Your task to perform on an android device: toggle airplane mode Image 0: 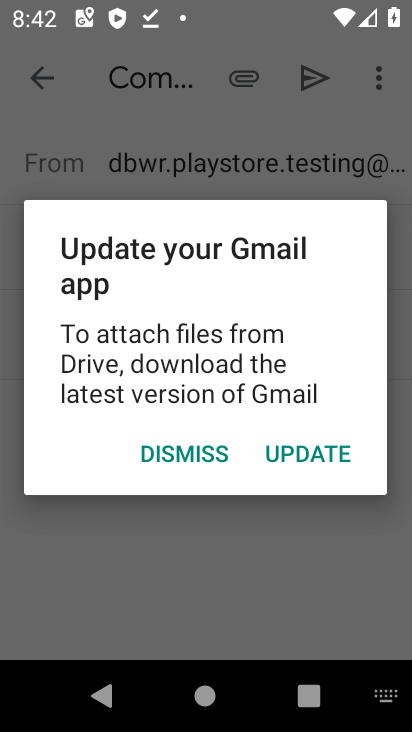
Step 0: click (298, 452)
Your task to perform on an android device: toggle airplane mode Image 1: 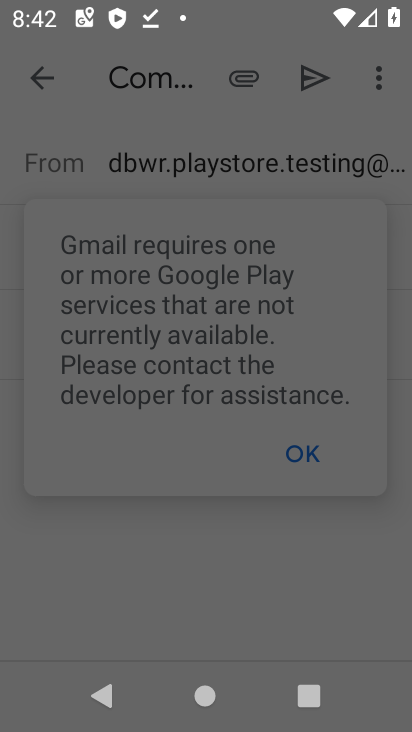
Step 1: click (215, 451)
Your task to perform on an android device: toggle airplane mode Image 2: 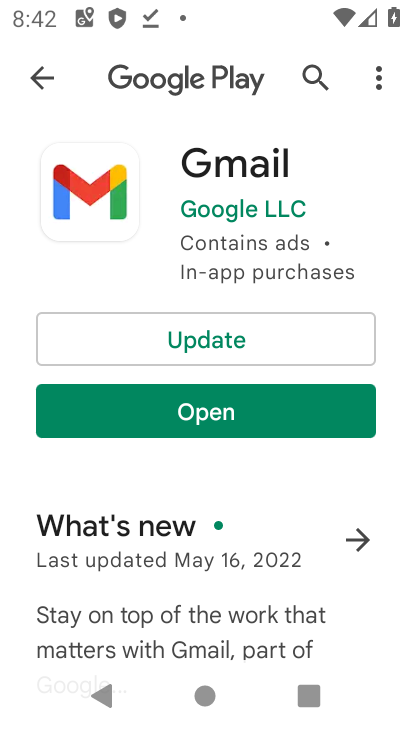
Step 2: press back button
Your task to perform on an android device: toggle airplane mode Image 3: 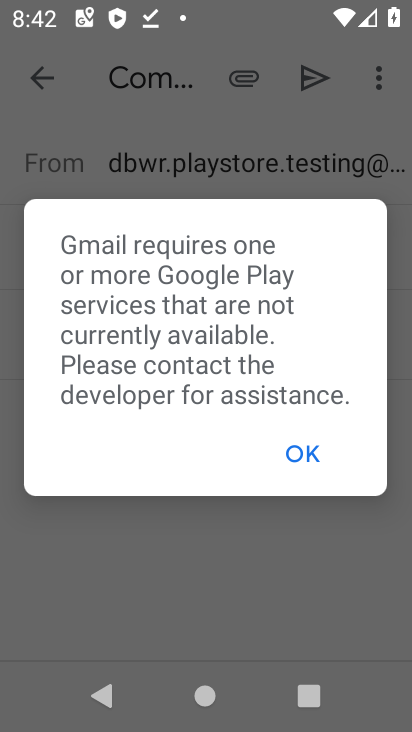
Step 3: click (308, 453)
Your task to perform on an android device: toggle airplane mode Image 4: 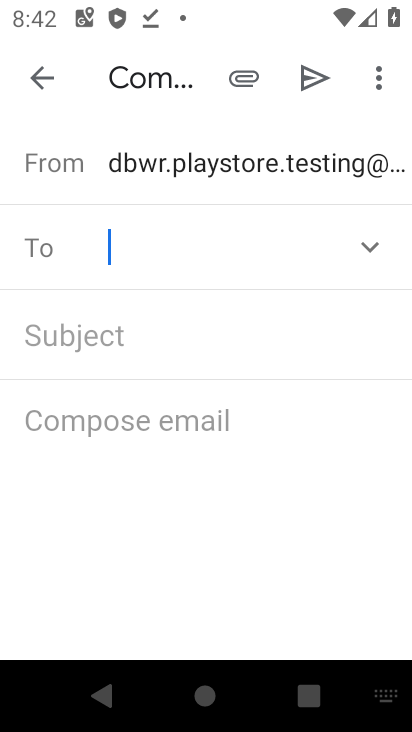
Step 4: click (27, 78)
Your task to perform on an android device: toggle airplane mode Image 5: 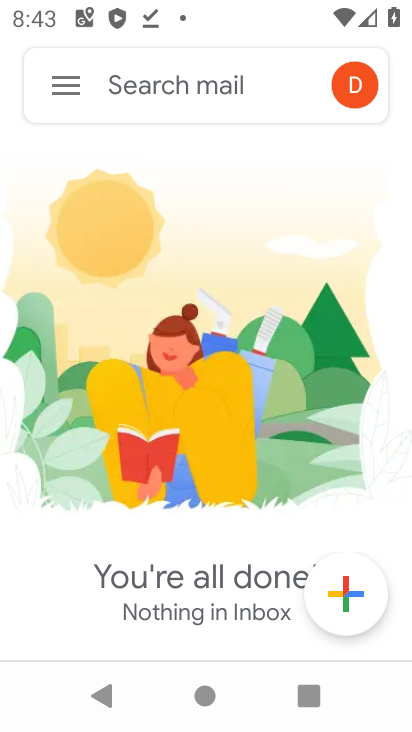
Step 5: press back button
Your task to perform on an android device: toggle airplane mode Image 6: 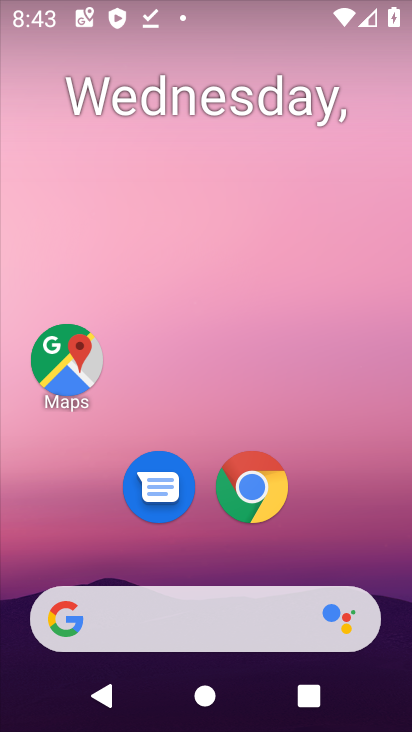
Step 6: drag from (250, 687) to (171, 140)
Your task to perform on an android device: toggle airplane mode Image 7: 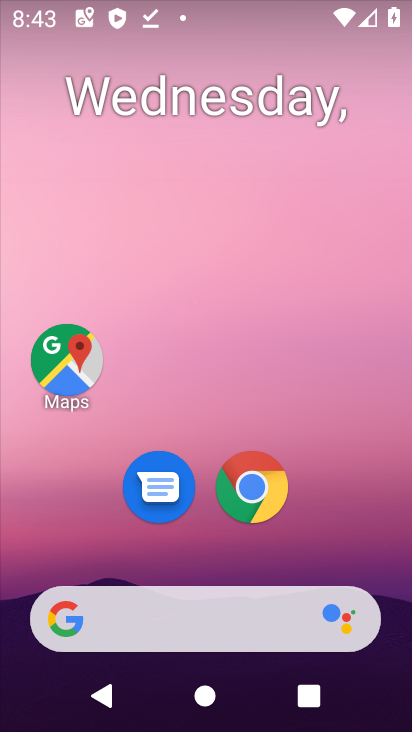
Step 7: drag from (253, 552) to (217, 30)
Your task to perform on an android device: toggle airplane mode Image 8: 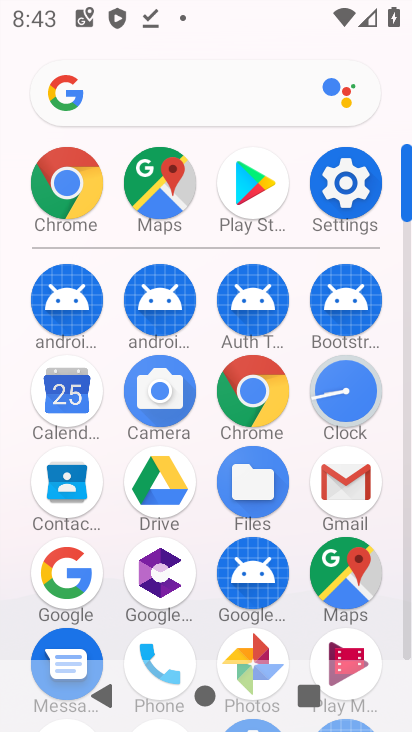
Step 8: click (312, 216)
Your task to perform on an android device: toggle airplane mode Image 9: 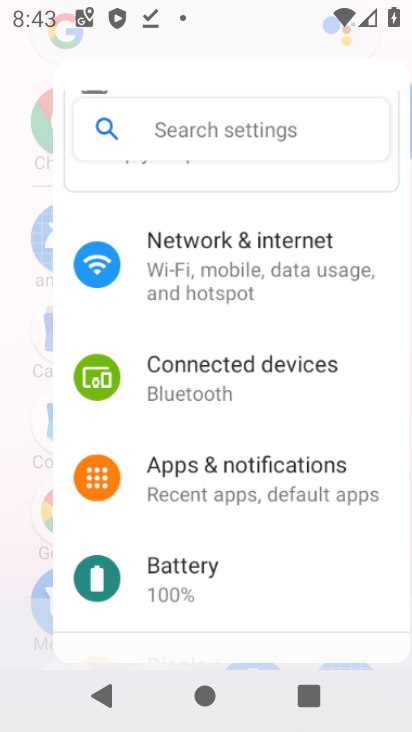
Step 9: click (359, 187)
Your task to perform on an android device: toggle airplane mode Image 10: 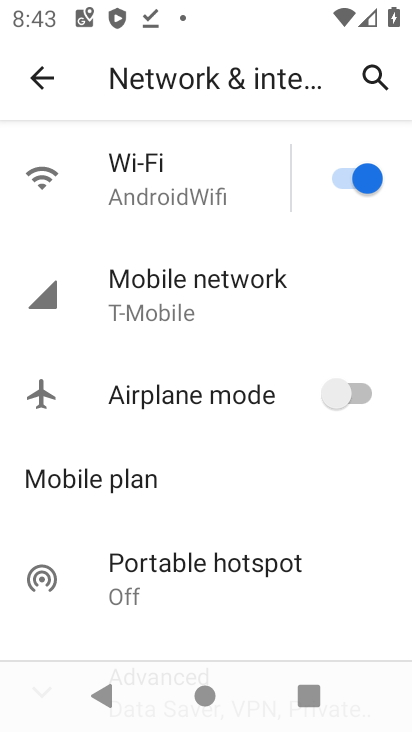
Step 10: click (346, 395)
Your task to perform on an android device: toggle airplane mode Image 11: 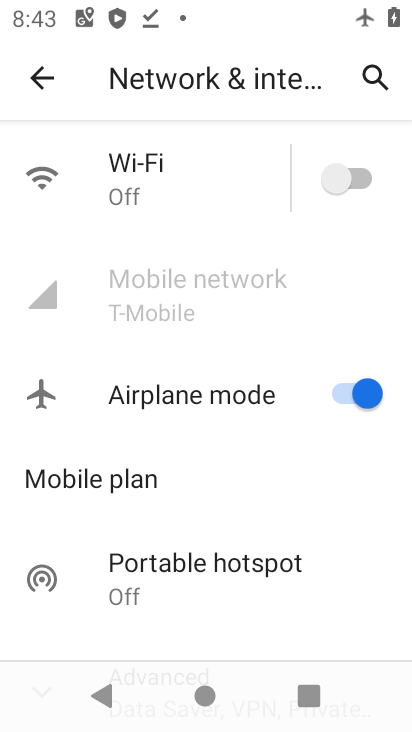
Step 11: task complete